Your task to perform on an android device: show emergency info Image 0: 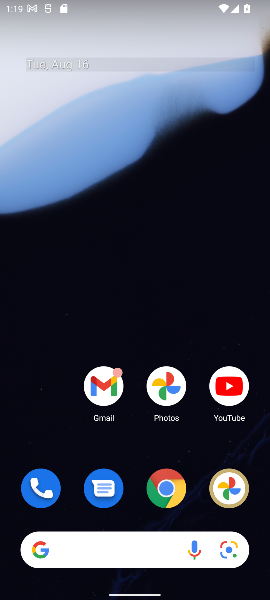
Step 0: drag from (46, 318) to (132, 6)
Your task to perform on an android device: show emergency info Image 1: 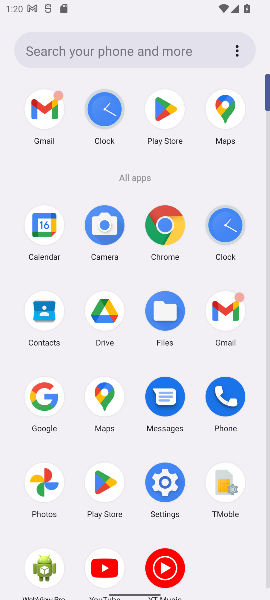
Step 1: click (169, 483)
Your task to perform on an android device: show emergency info Image 2: 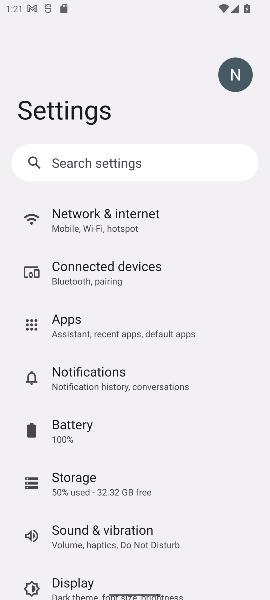
Step 2: task complete